Your task to perform on an android device: Go to Wikipedia Image 0: 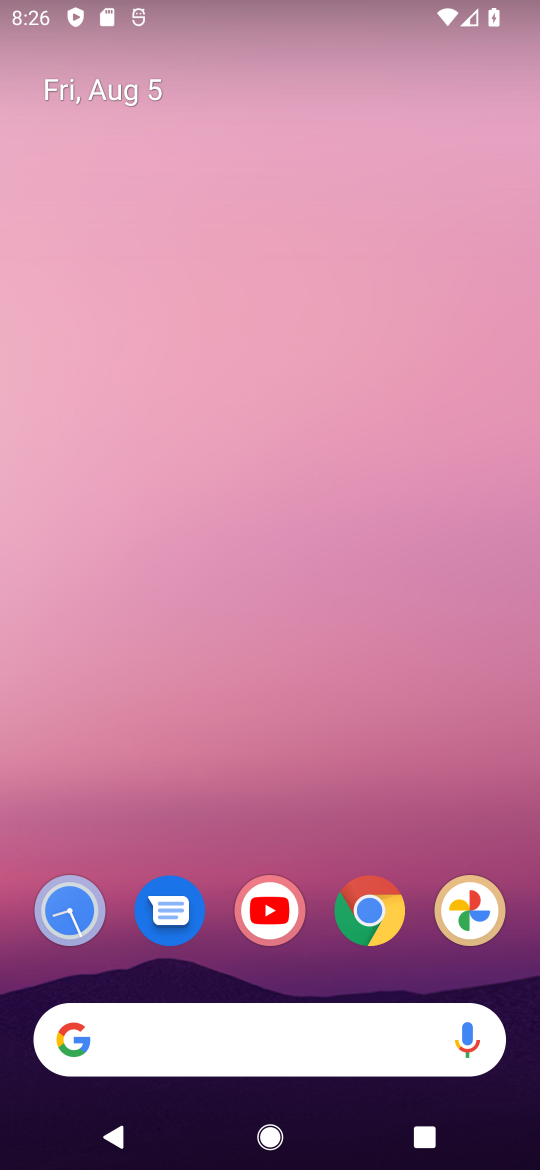
Step 0: click (364, 910)
Your task to perform on an android device: Go to Wikipedia Image 1: 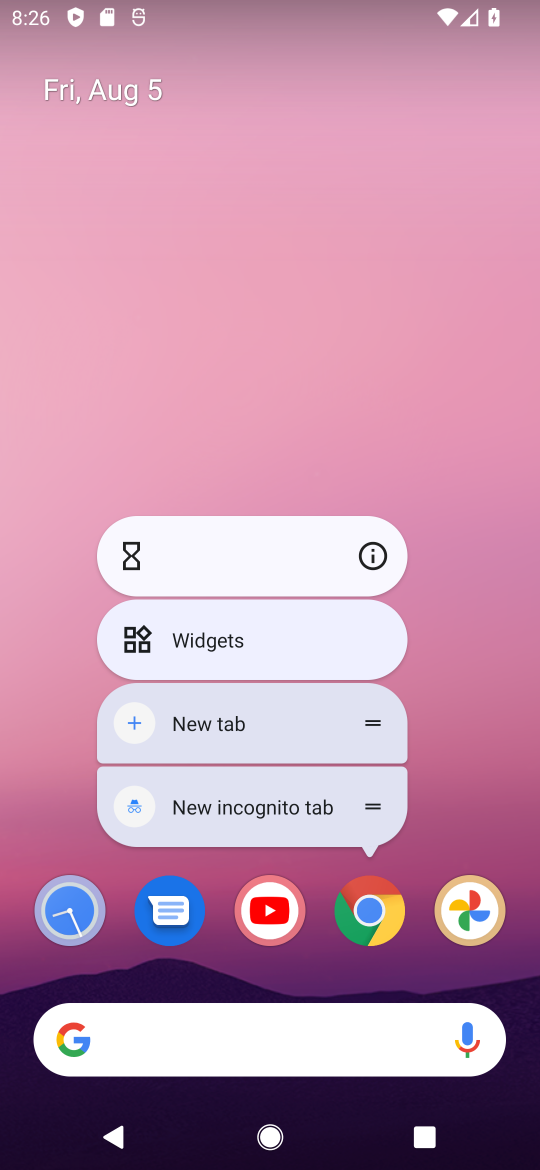
Step 1: click (380, 922)
Your task to perform on an android device: Go to Wikipedia Image 2: 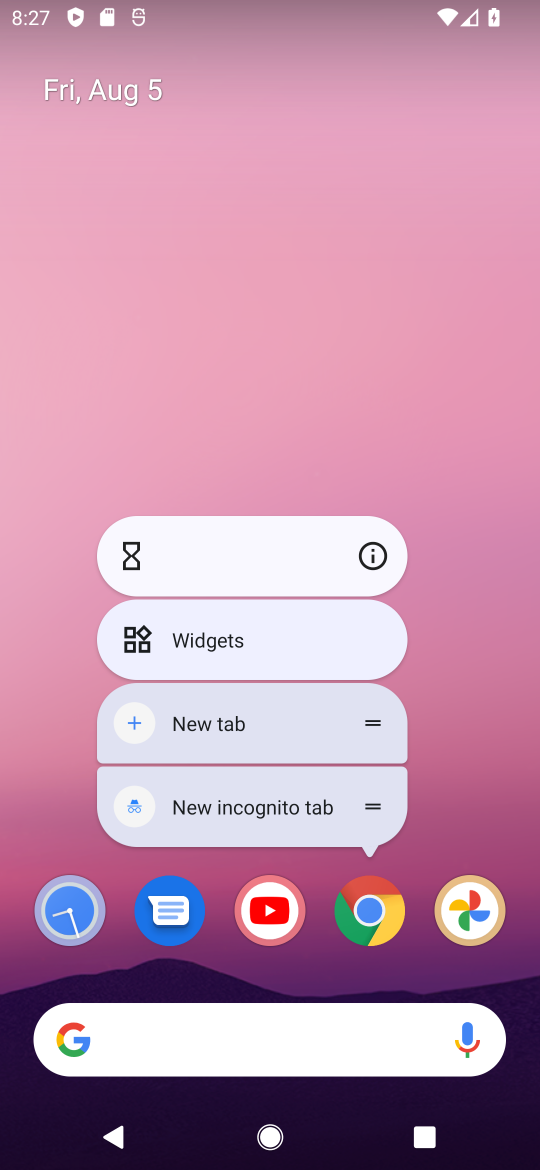
Step 2: click (357, 901)
Your task to perform on an android device: Go to Wikipedia Image 3: 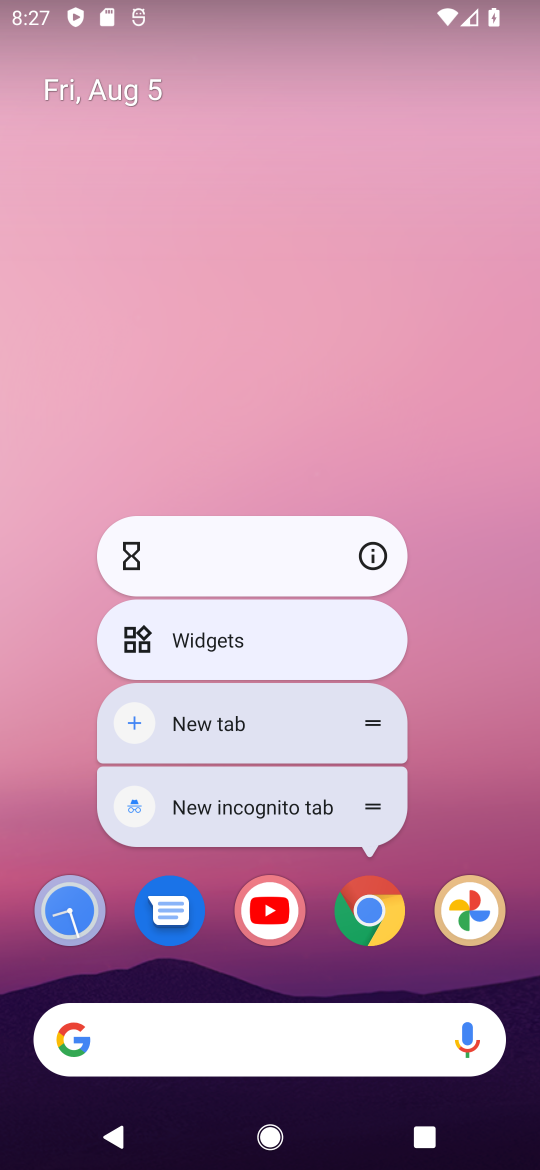
Step 3: click (350, 897)
Your task to perform on an android device: Go to Wikipedia Image 4: 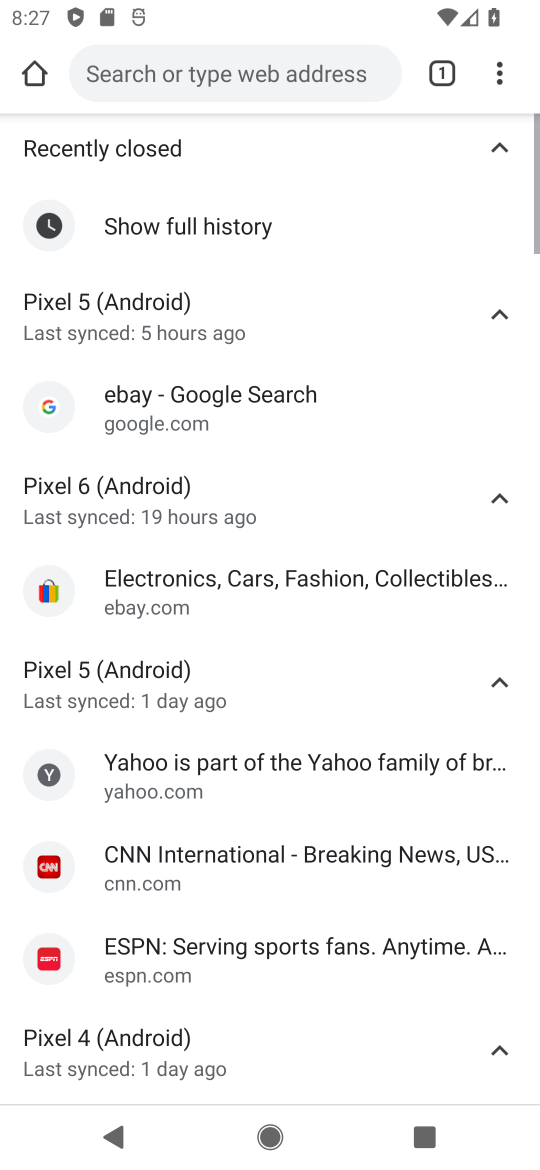
Step 4: drag from (503, 63) to (395, 151)
Your task to perform on an android device: Go to Wikipedia Image 5: 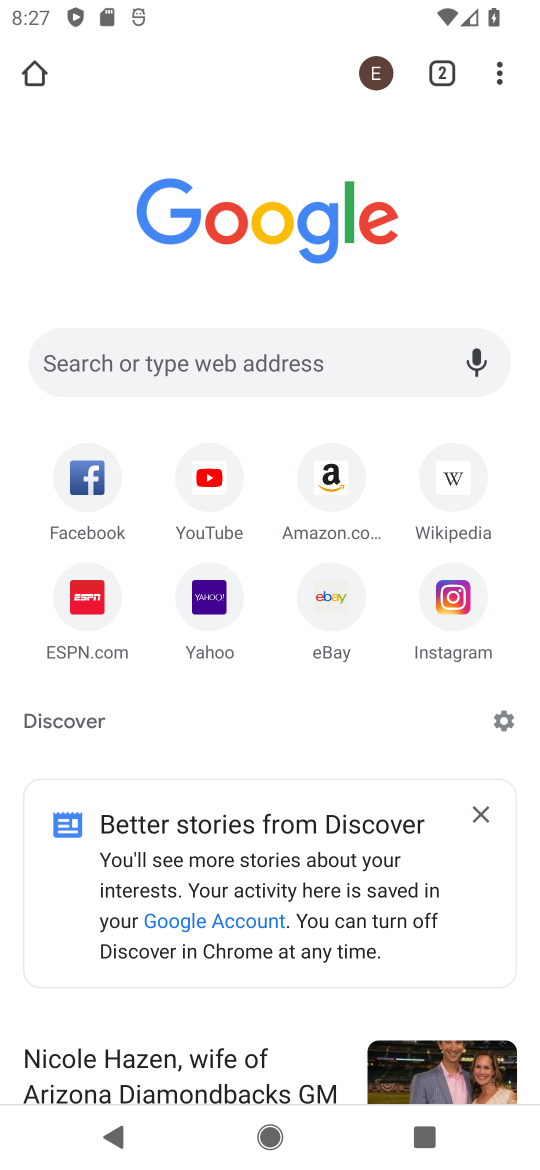
Step 5: click (452, 483)
Your task to perform on an android device: Go to Wikipedia Image 6: 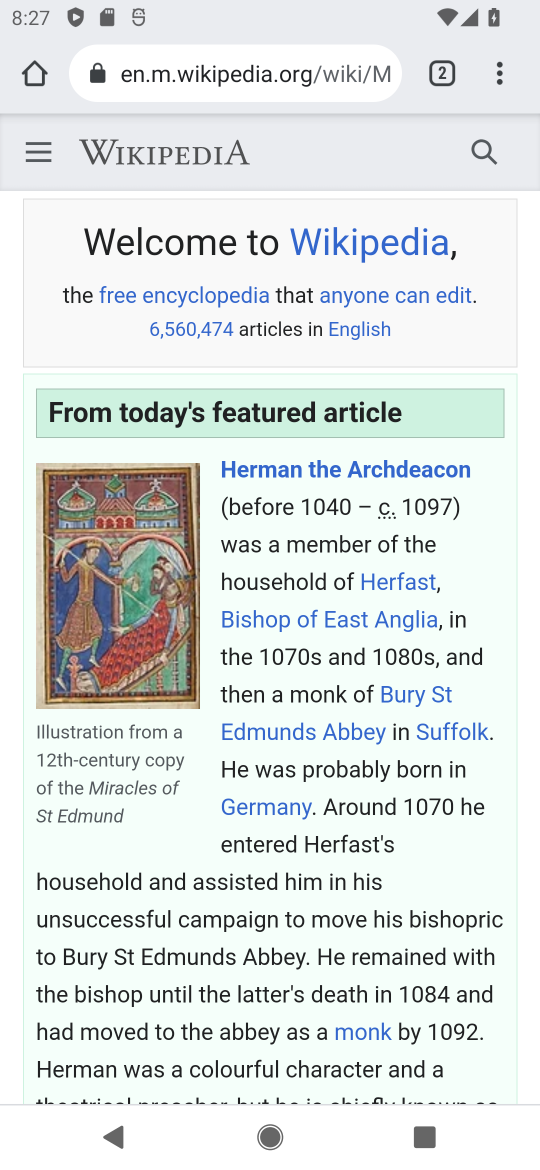
Step 6: task complete